Your task to perform on an android device: Go to battery settings Image 0: 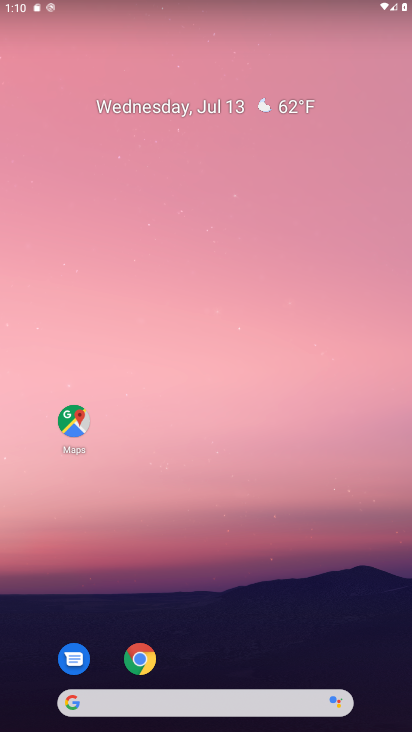
Step 0: drag from (301, 576) to (301, 70)
Your task to perform on an android device: Go to battery settings Image 1: 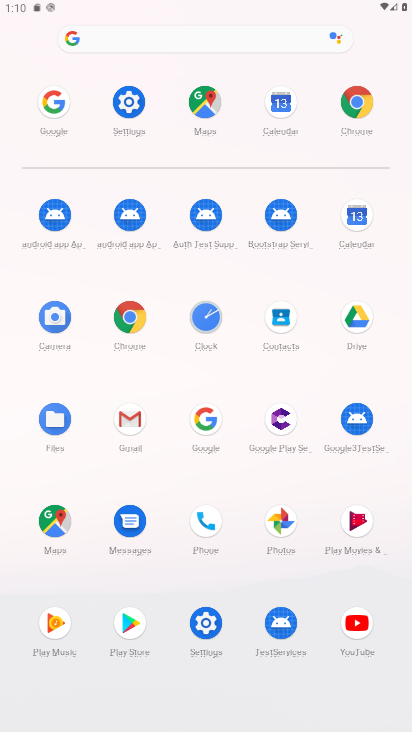
Step 1: click (216, 619)
Your task to perform on an android device: Go to battery settings Image 2: 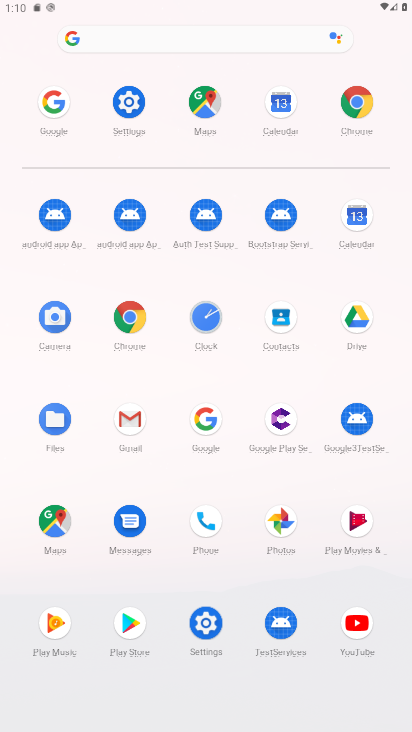
Step 2: click (216, 619)
Your task to perform on an android device: Go to battery settings Image 3: 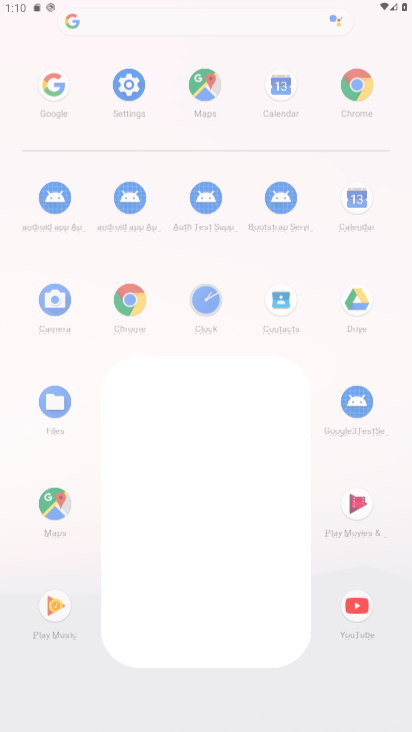
Step 3: click (216, 619)
Your task to perform on an android device: Go to battery settings Image 4: 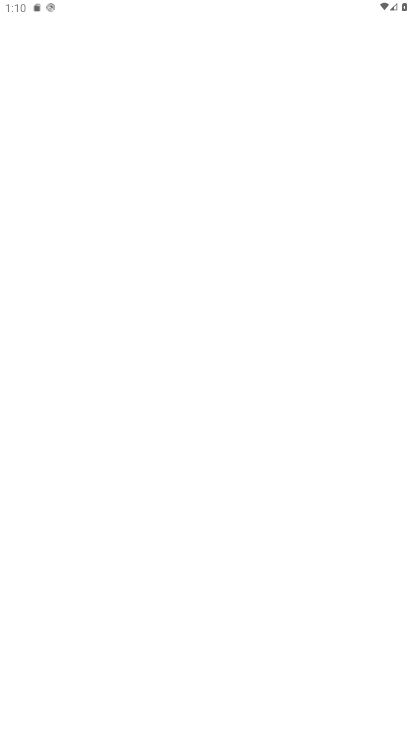
Step 4: click (216, 619)
Your task to perform on an android device: Go to battery settings Image 5: 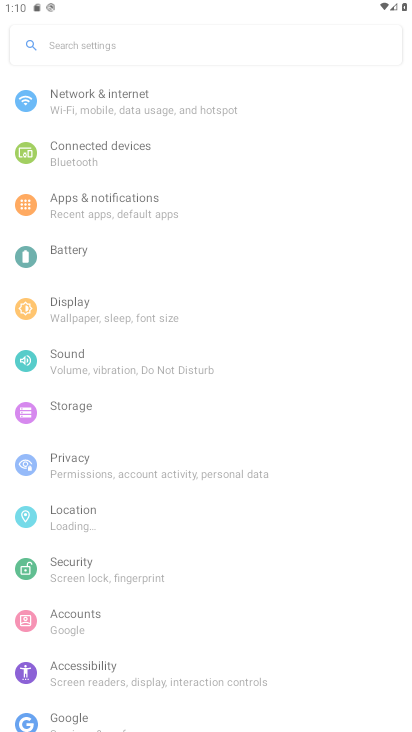
Step 5: click (216, 619)
Your task to perform on an android device: Go to battery settings Image 6: 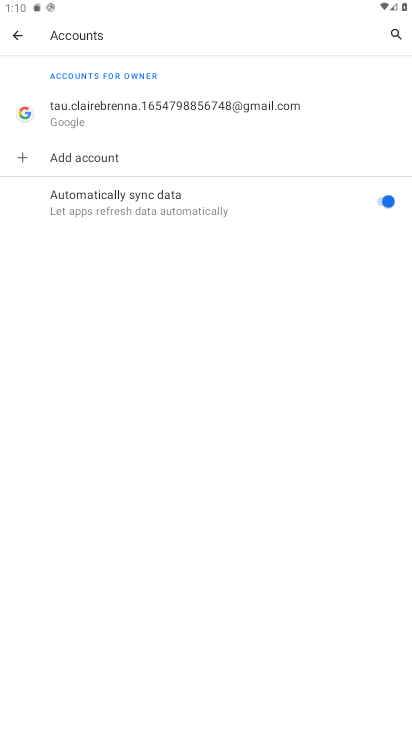
Step 6: click (12, 35)
Your task to perform on an android device: Go to battery settings Image 7: 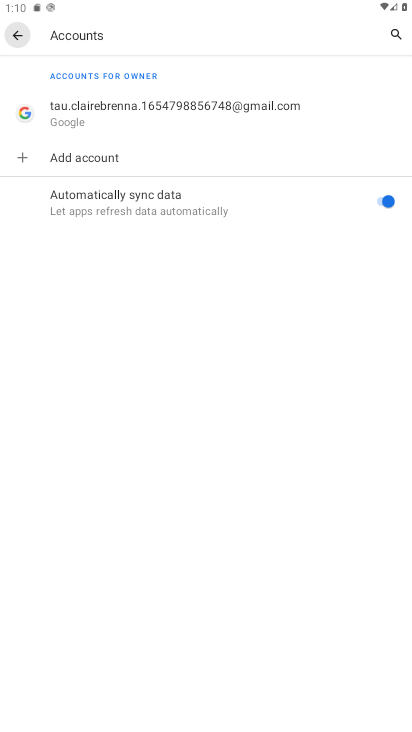
Step 7: click (12, 35)
Your task to perform on an android device: Go to battery settings Image 8: 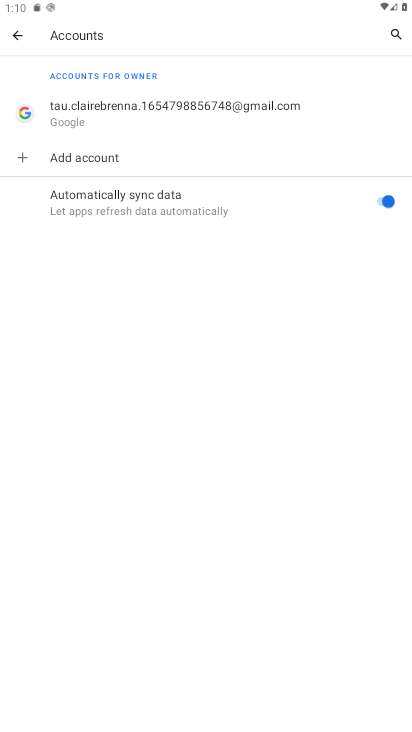
Step 8: click (12, 35)
Your task to perform on an android device: Go to battery settings Image 9: 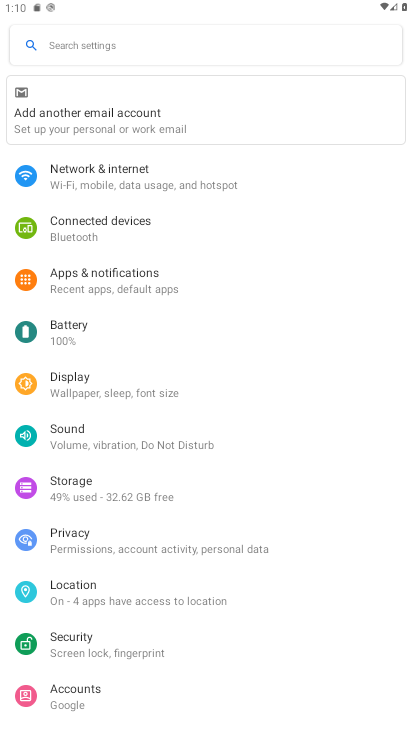
Step 9: click (59, 308)
Your task to perform on an android device: Go to battery settings Image 10: 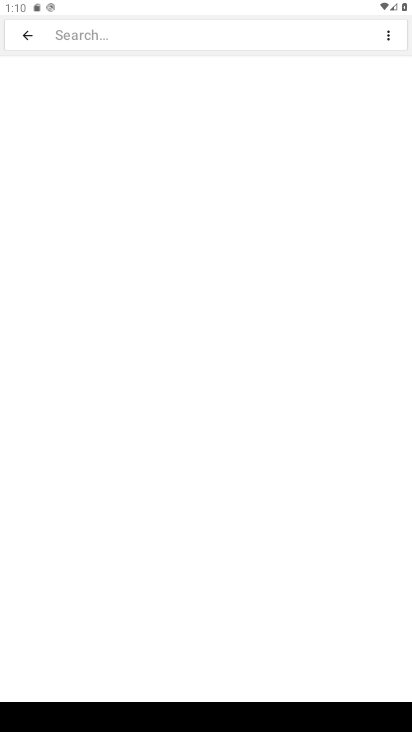
Step 10: click (21, 40)
Your task to perform on an android device: Go to battery settings Image 11: 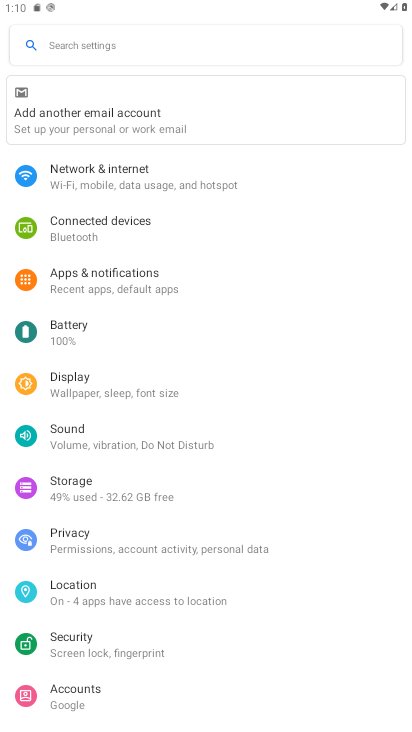
Step 11: click (68, 325)
Your task to perform on an android device: Go to battery settings Image 12: 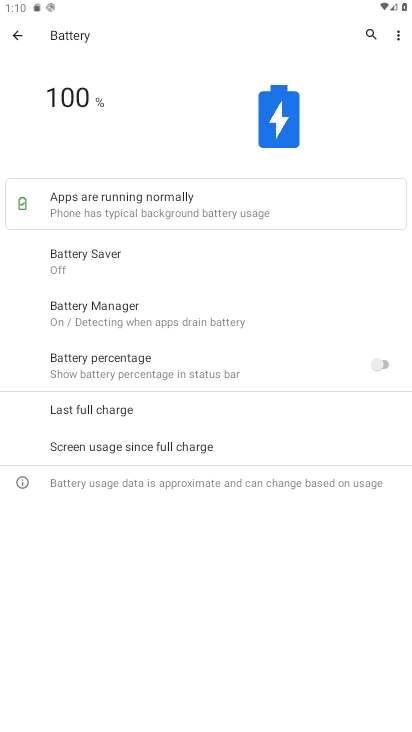
Step 12: click (68, 326)
Your task to perform on an android device: Go to battery settings Image 13: 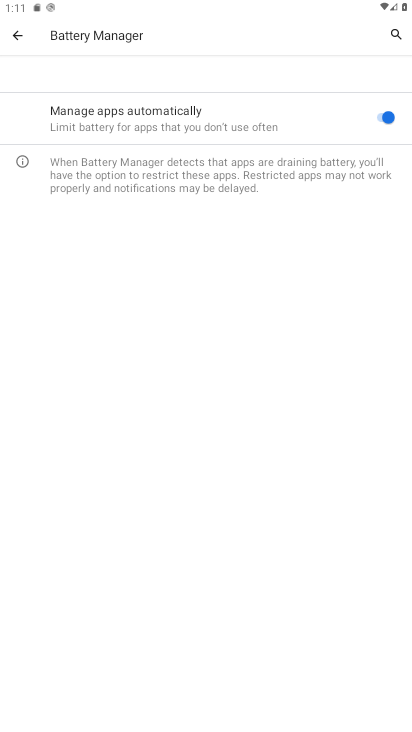
Step 13: task complete